Your task to perform on an android device: find which apps use the phone's location Image 0: 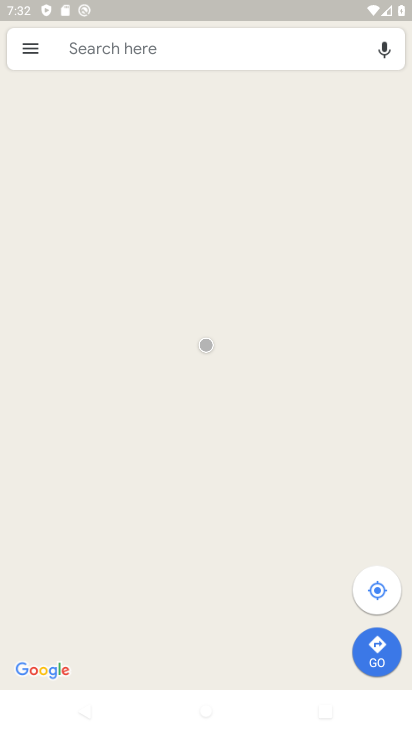
Step 0: press home button
Your task to perform on an android device: find which apps use the phone's location Image 1: 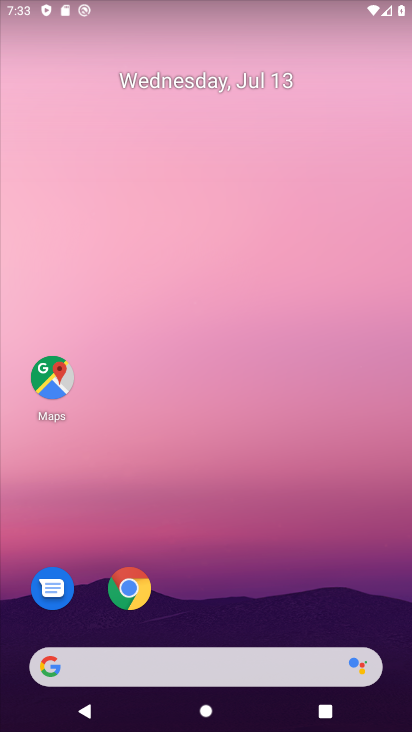
Step 1: drag from (239, 639) to (209, 20)
Your task to perform on an android device: find which apps use the phone's location Image 2: 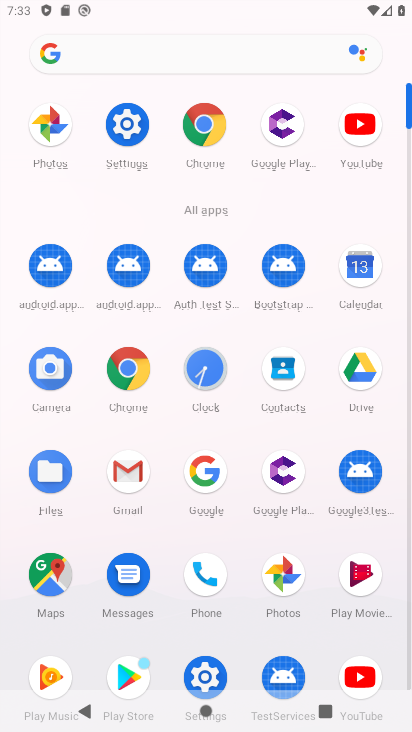
Step 2: click (134, 118)
Your task to perform on an android device: find which apps use the phone's location Image 3: 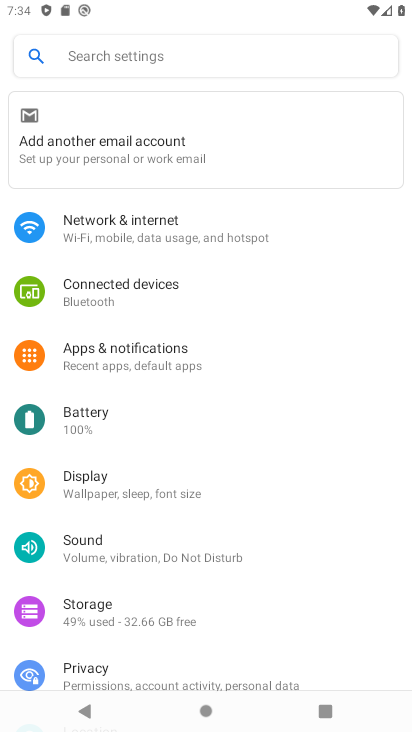
Step 3: drag from (196, 525) to (218, 112)
Your task to perform on an android device: find which apps use the phone's location Image 4: 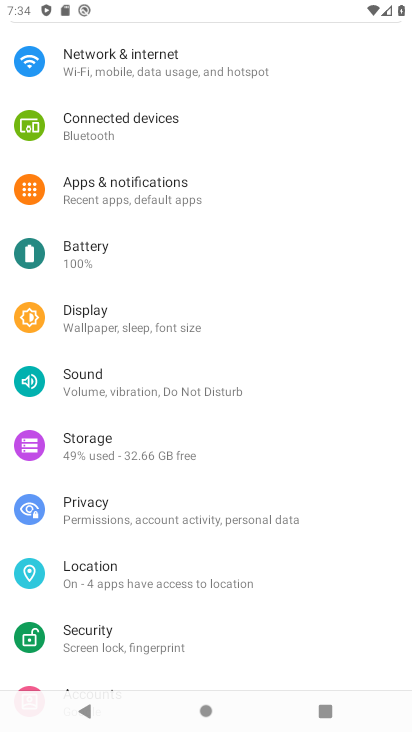
Step 4: click (120, 577)
Your task to perform on an android device: find which apps use the phone's location Image 5: 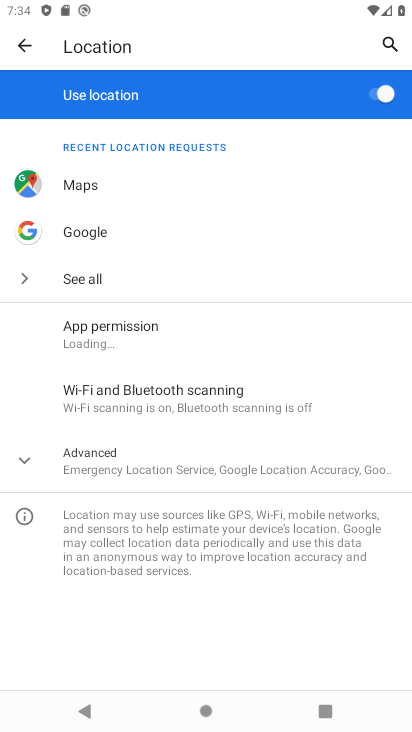
Step 5: click (113, 335)
Your task to perform on an android device: find which apps use the phone's location Image 6: 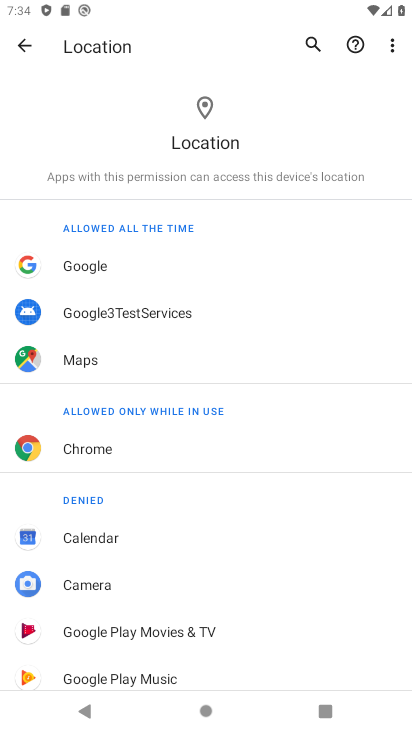
Step 6: task complete